Your task to perform on an android device: toggle location history Image 0: 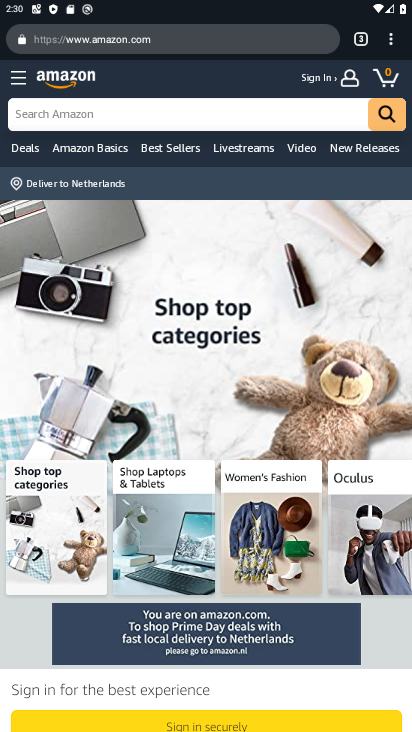
Step 0: press home button
Your task to perform on an android device: toggle location history Image 1: 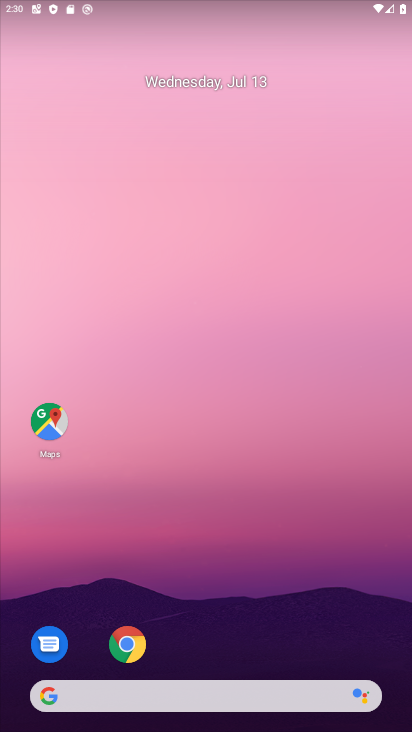
Step 1: drag from (270, 649) to (303, 142)
Your task to perform on an android device: toggle location history Image 2: 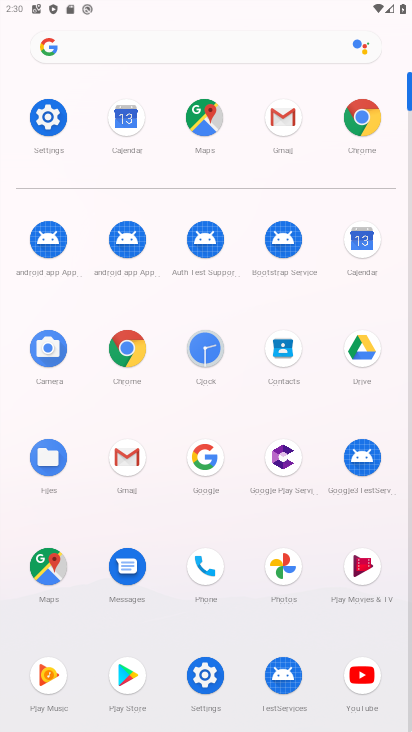
Step 2: click (46, 113)
Your task to perform on an android device: toggle location history Image 3: 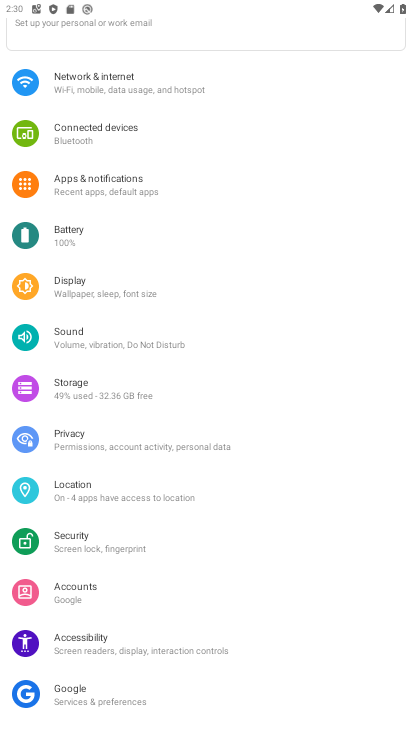
Step 3: click (115, 489)
Your task to perform on an android device: toggle location history Image 4: 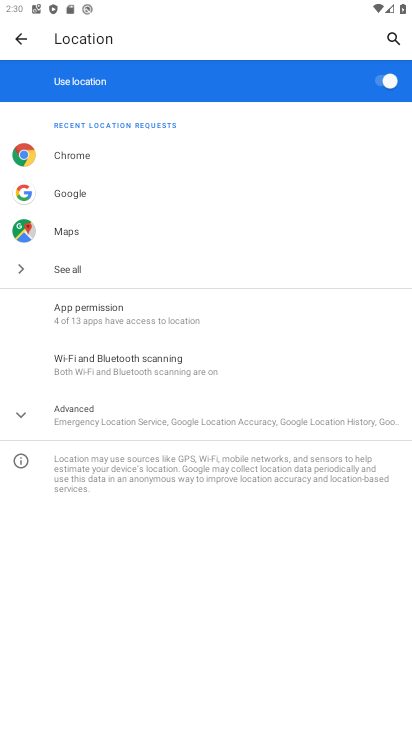
Step 4: click (83, 414)
Your task to perform on an android device: toggle location history Image 5: 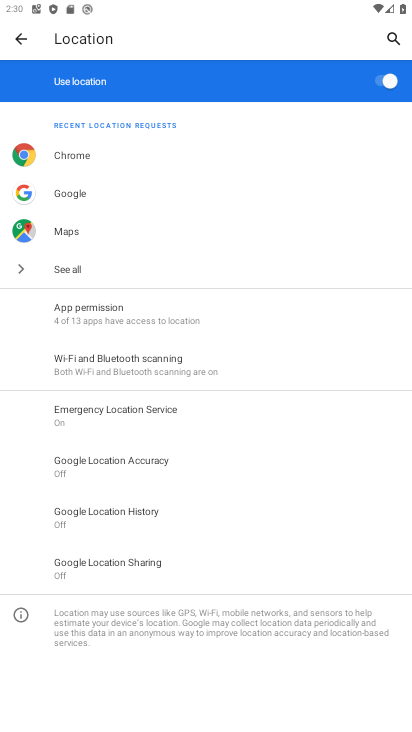
Step 5: click (152, 512)
Your task to perform on an android device: toggle location history Image 6: 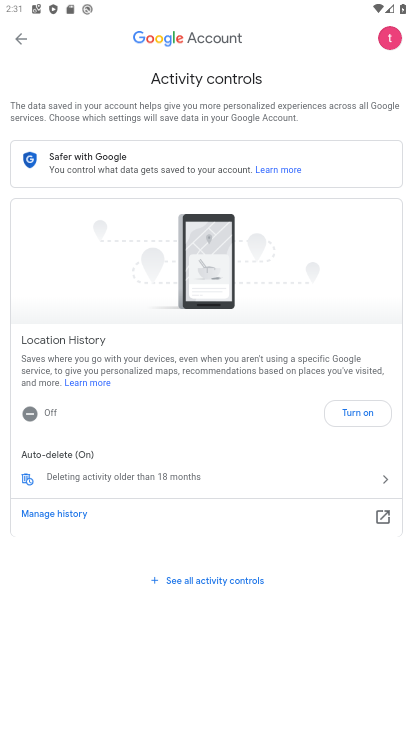
Step 6: click (362, 405)
Your task to perform on an android device: toggle location history Image 7: 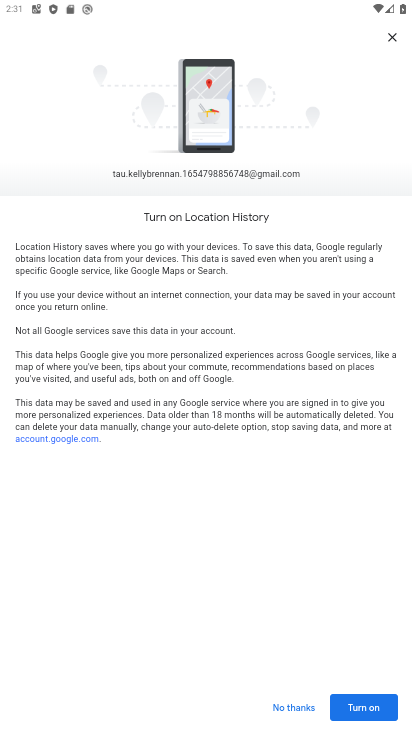
Step 7: click (359, 706)
Your task to perform on an android device: toggle location history Image 8: 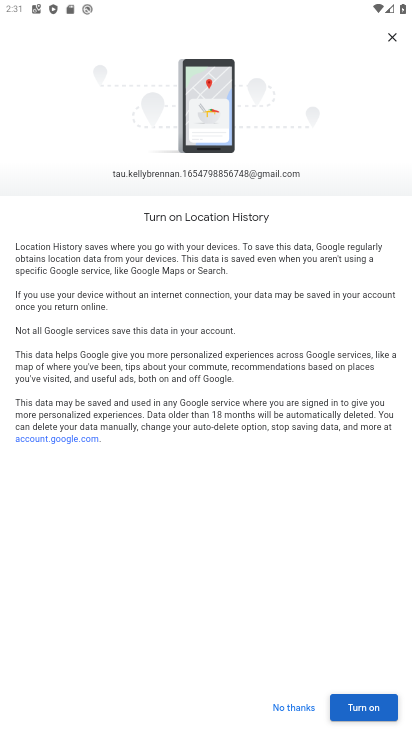
Step 8: click (359, 706)
Your task to perform on an android device: toggle location history Image 9: 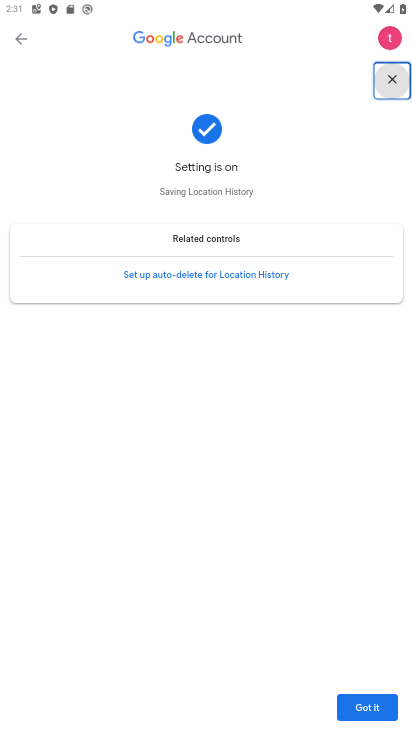
Step 9: task complete